Your task to perform on an android device: Open Google Chrome and open the bookmarks view Image 0: 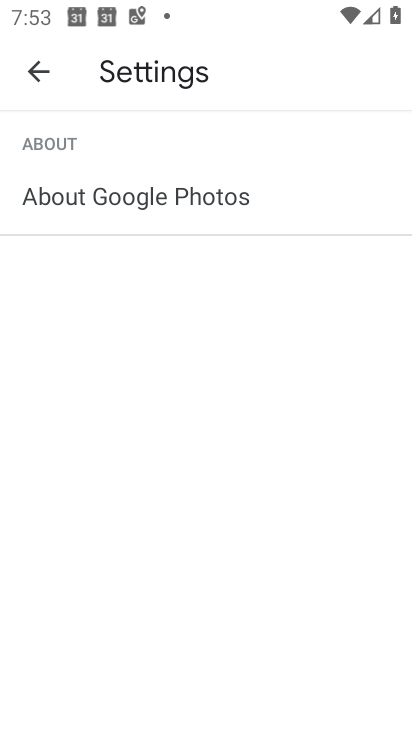
Step 0: press home button
Your task to perform on an android device: Open Google Chrome and open the bookmarks view Image 1: 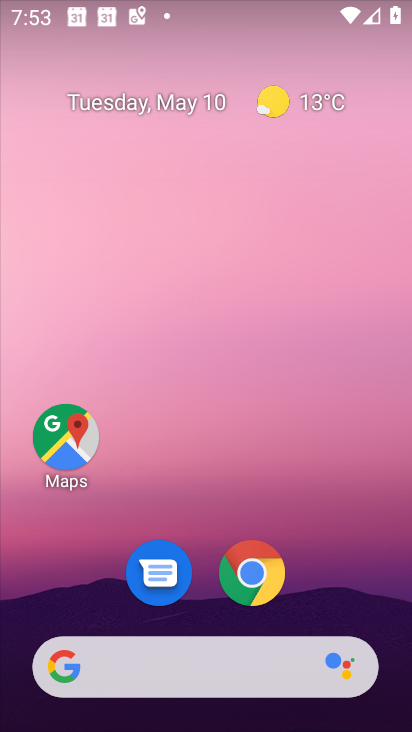
Step 1: click (248, 574)
Your task to perform on an android device: Open Google Chrome and open the bookmarks view Image 2: 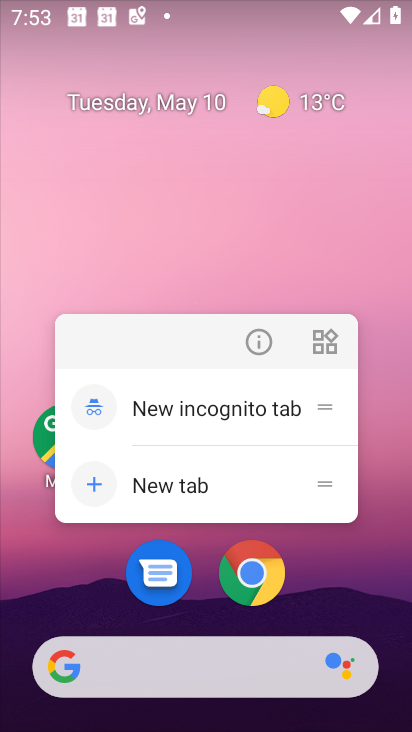
Step 2: click (260, 574)
Your task to perform on an android device: Open Google Chrome and open the bookmarks view Image 3: 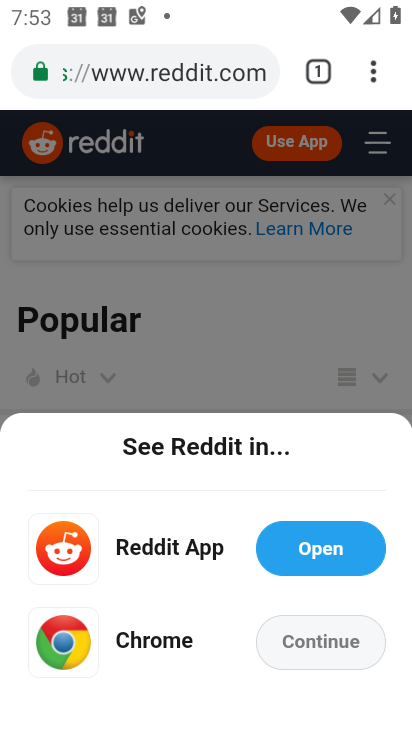
Step 3: click (372, 78)
Your task to perform on an android device: Open Google Chrome and open the bookmarks view Image 4: 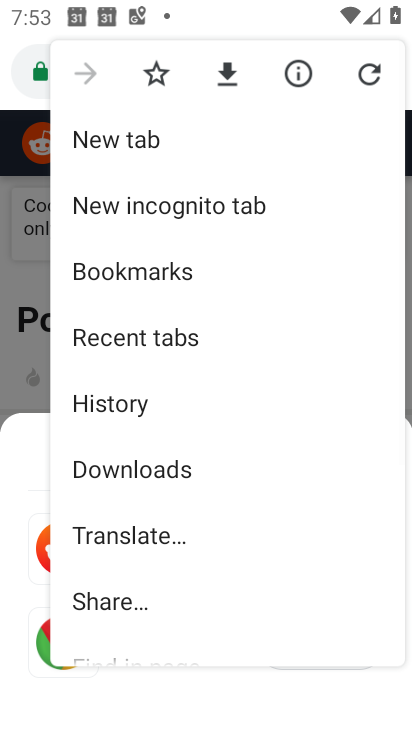
Step 4: click (138, 272)
Your task to perform on an android device: Open Google Chrome and open the bookmarks view Image 5: 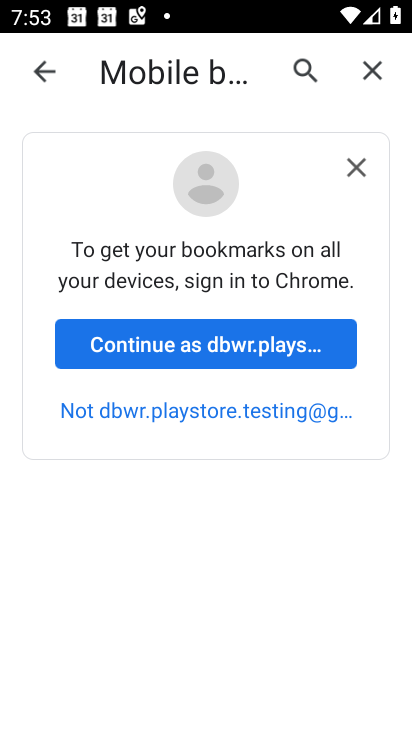
Step 5: click (165, 329)
Your task to perform on an android device: Open Google Chrome and open the bookmarks view Image 6: 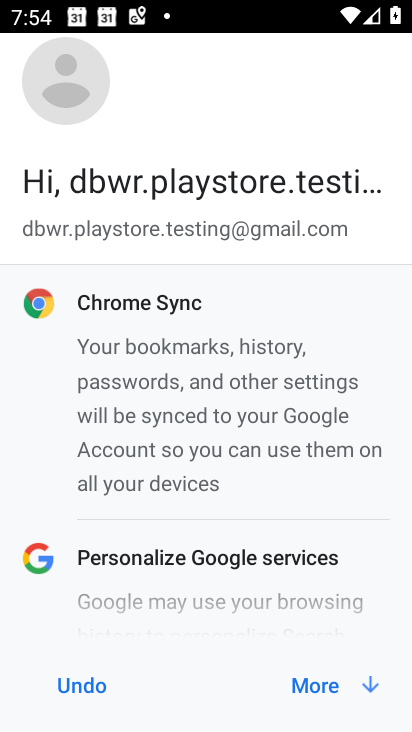
Step 6: click (336, 687)
Your task to perform on an android device: Open Google Chrome and open the bookmarks view Image 7: 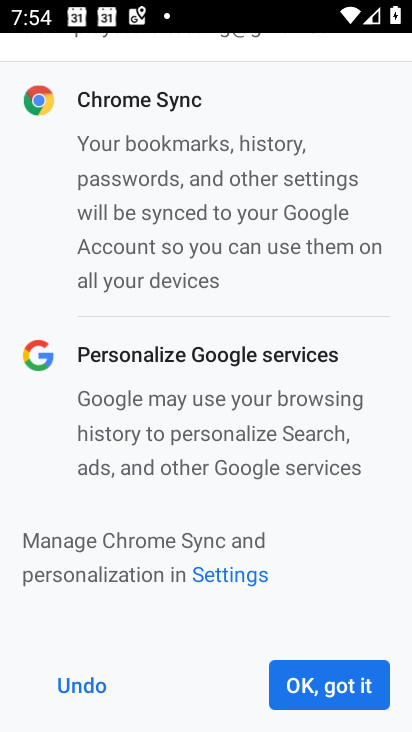
Step 7: click (336, 687)
Your task to perform on an android device: Open Google Chrome and open the bookmarks view Image 8: 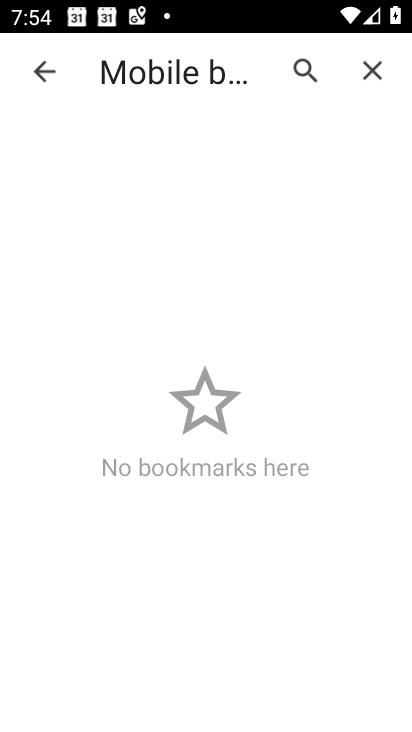
Step 8: drag from (186, 244) to (207, 504)
Your task to perform on an android device: Open Google Chrome and open the bookmarks view Image 9: 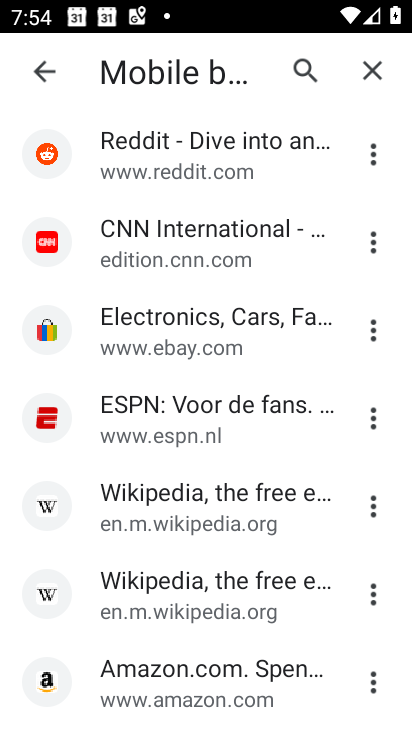
Step 9: click (159, 337)
Your task to perform on an android device: Open Google Chrome and open the bookmarks view Image 10: 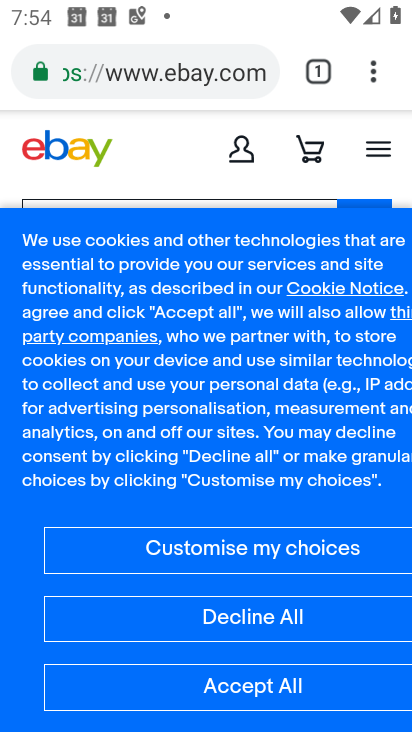
Step 10: task complete